Your task to perform on an android device: manage bookmarks in the chrome app Image 0: 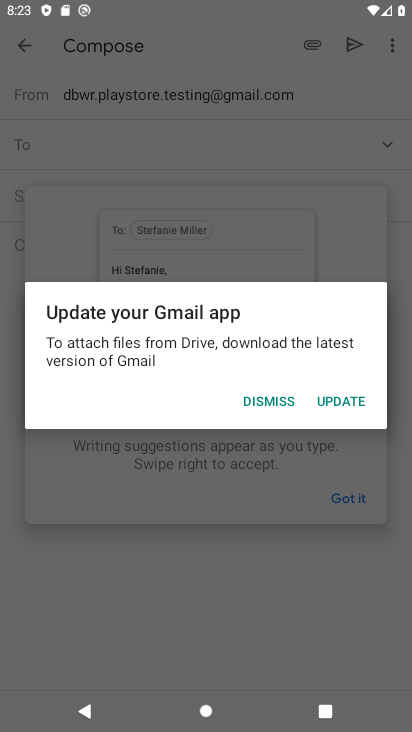
Step 0: press home button
Your task to perform on an android device: manage bookmarks in the chrome app Image 1: 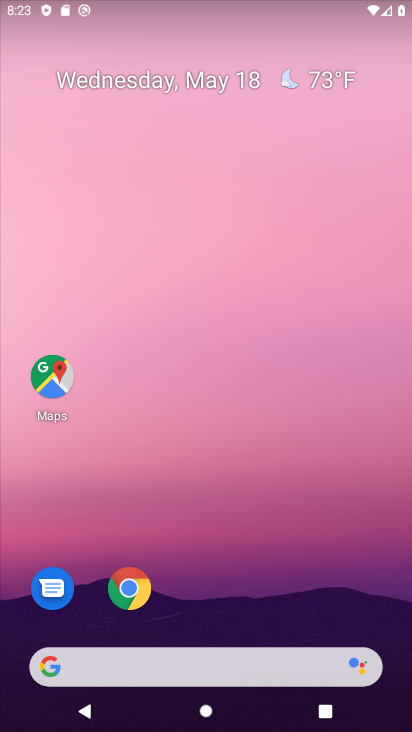
Step 1: drag from (327, 572) to (271, 200)
Your task to perform on an android device: manage bookmarks in the chrome app Image 2: 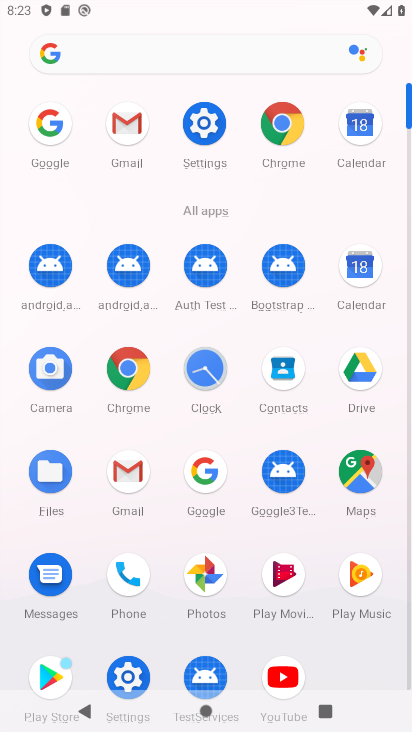
Step 2: click (126, 372)
Your task to perform on an android device: manage bookmarks in the chrome app Image 3: 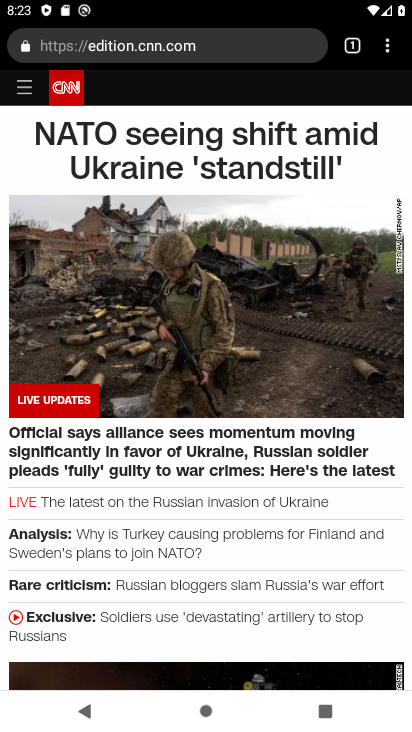
Step 3: task complete